Your task to perform on an android device: Go to wifi settings Image 0: 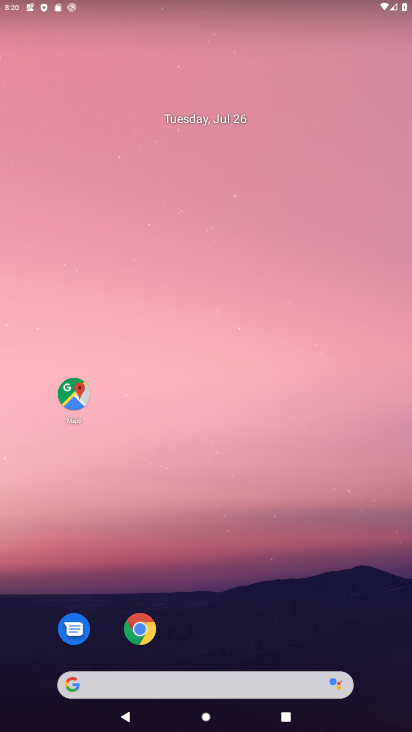
Step 0: press home button
Your task to perform on an android device: Go to wifi settings Image 1: 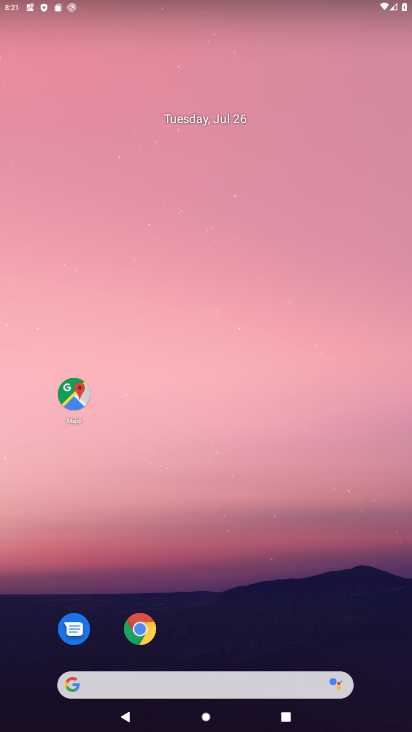
Step 1: drag from (226, 649) to (266, 55)
Your task to perform on an android device: Go to wifi settings Image 2: 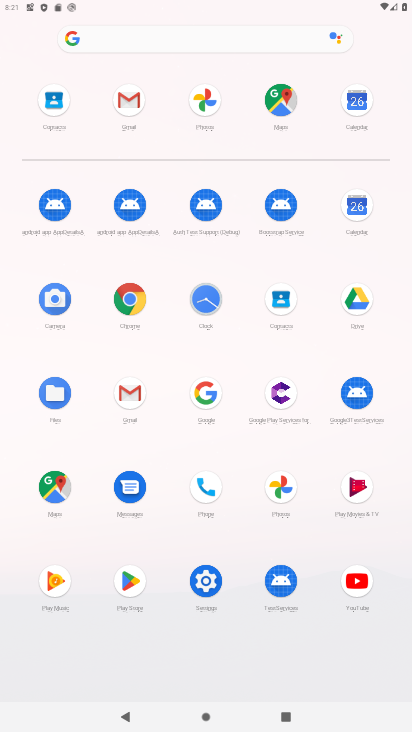
Step 2: click (205, 579)
Your task to perform on an android device: Go to wifi settings Image 3: 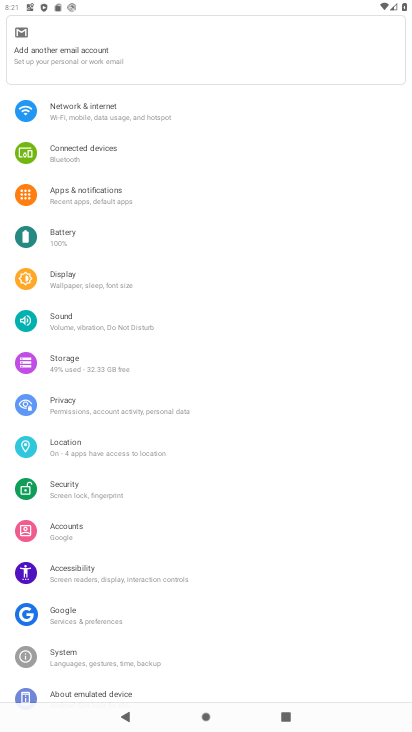
Step 3: click (118, 108)
Your task to perform on an android device: Go to wifi settings Image 4: 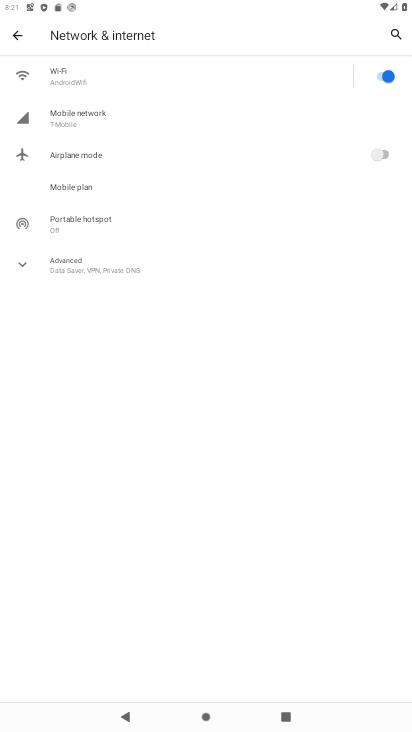
Step 4: click (95, 72)
Your task to perform on an android device: Go to wifi settings Image 5: 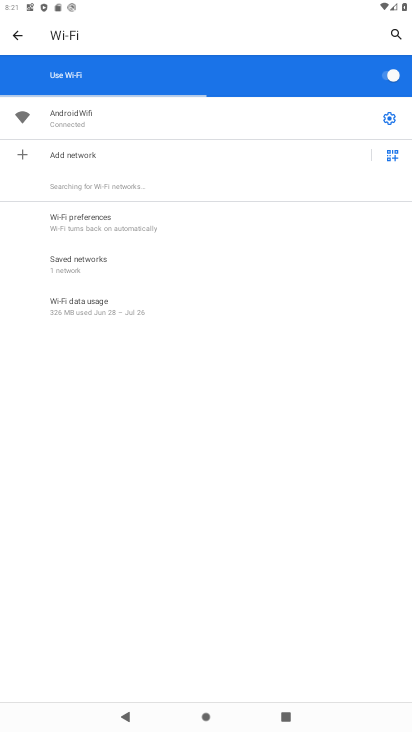
Step 5: task complete